Your task to perform on an android device: Go to privacy settings Image 0: 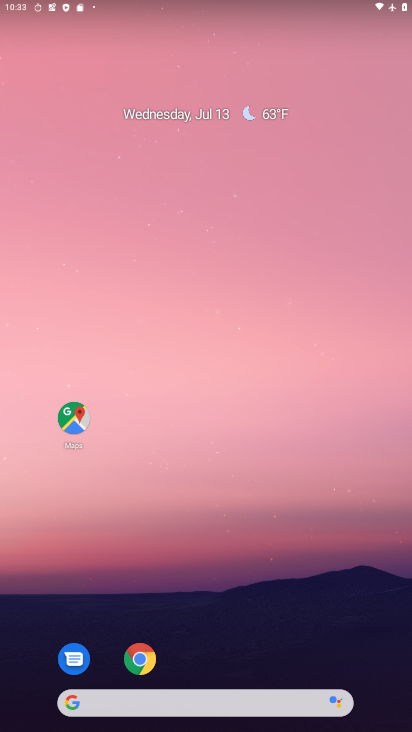
Step 0: drag from (273, 621) to (307, 134)
Your task to perform on an android device: Go to privacy settings Image 1: 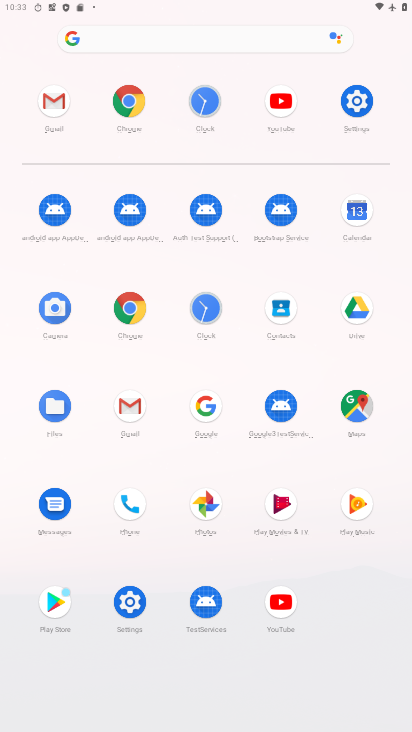
Step 1: click (361, 92)
Your task to perform on an android device: Go to privacy settings Image 2: 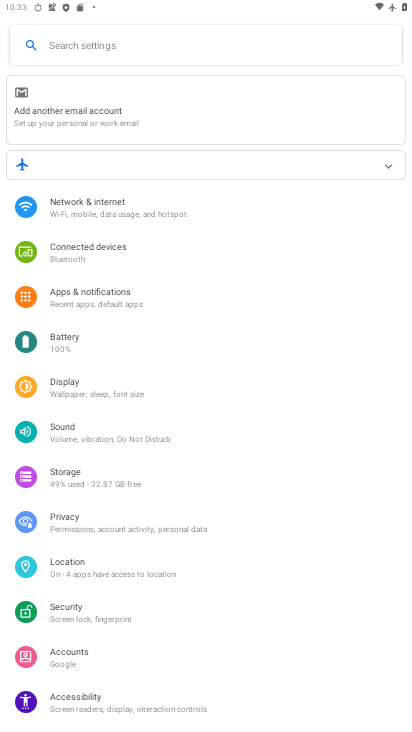
Step 2: drag from (202, 635) to (213, 211)
Your task to perform on an android device: Go to privacy settings Image 3: 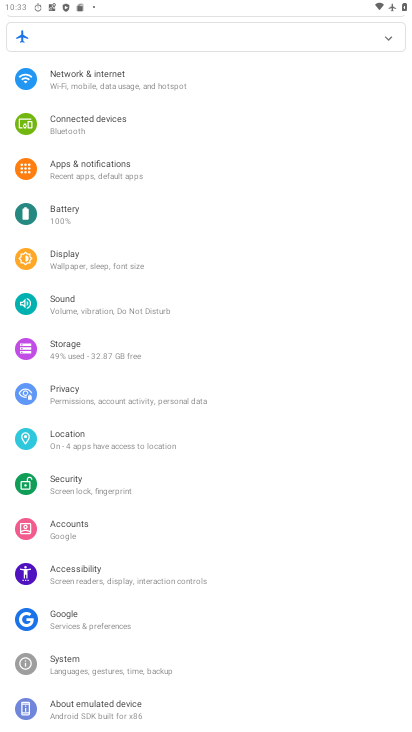
Step 3: click (91, 397)
Your task to perform on an android device: Go to privacy settings Image 4: 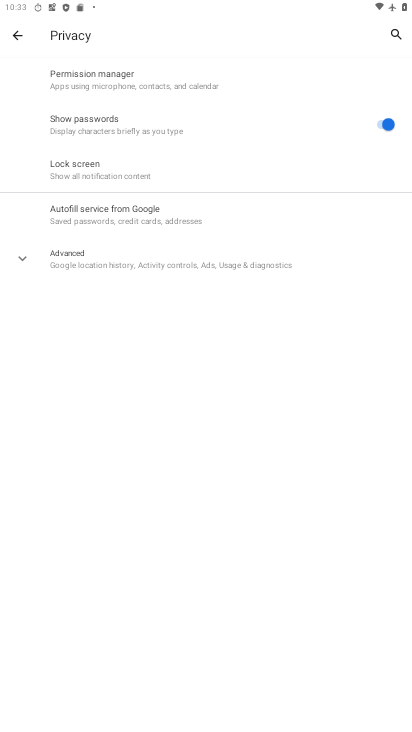
Step 4: click (172, 269)
Your task to perform on an android device: Go to privacy settings Image 5: 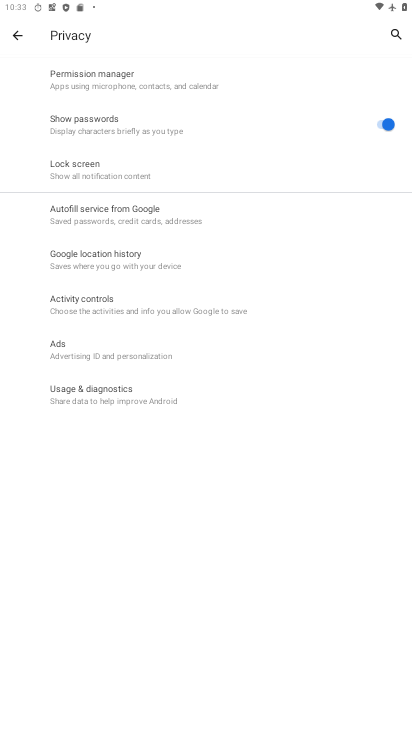
Step 5: task complete